Your task to perform on an android device: Go to Yahoo.com Image 0: 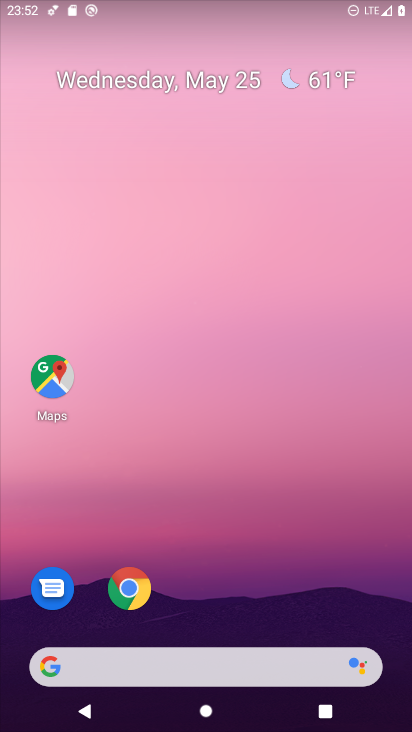
Step 0: click (133, 579)
Your task to perform on an android device: Go to Yahoo.com Image 1: 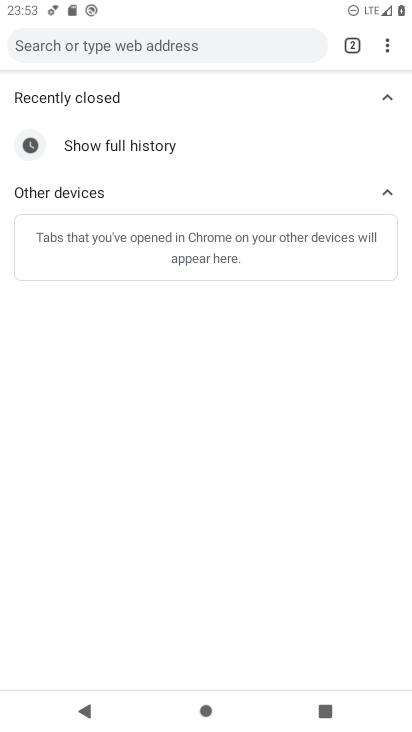
Step 1: click (385, 48)
Your task to perform on an android device: Go to Yahoo.com Image 2: 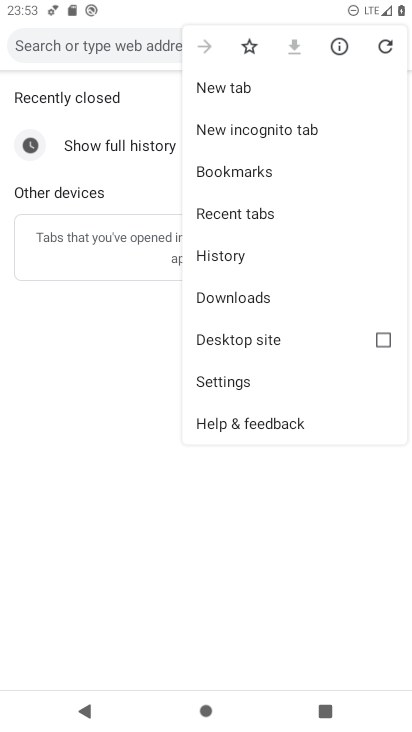
Step 2: click (233, 93)
Your task to perform on an android device: Go to Yahoo.com Image 3: 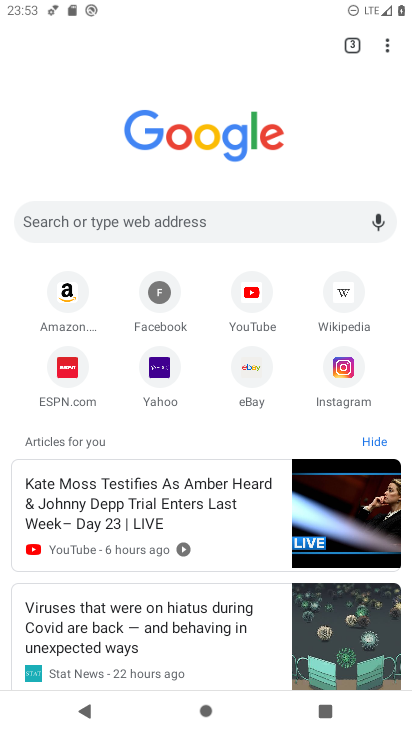
Step 3: click (156, 377)
Your task to perform on an android device: Go to Yahoo.com Image 4: 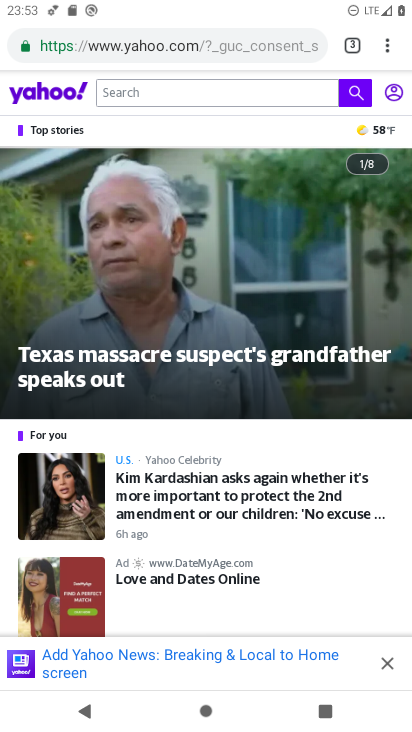
Step 4: task complete